Your task to perform on an android device: Add razer thresher to the cart on walmart Image 0: 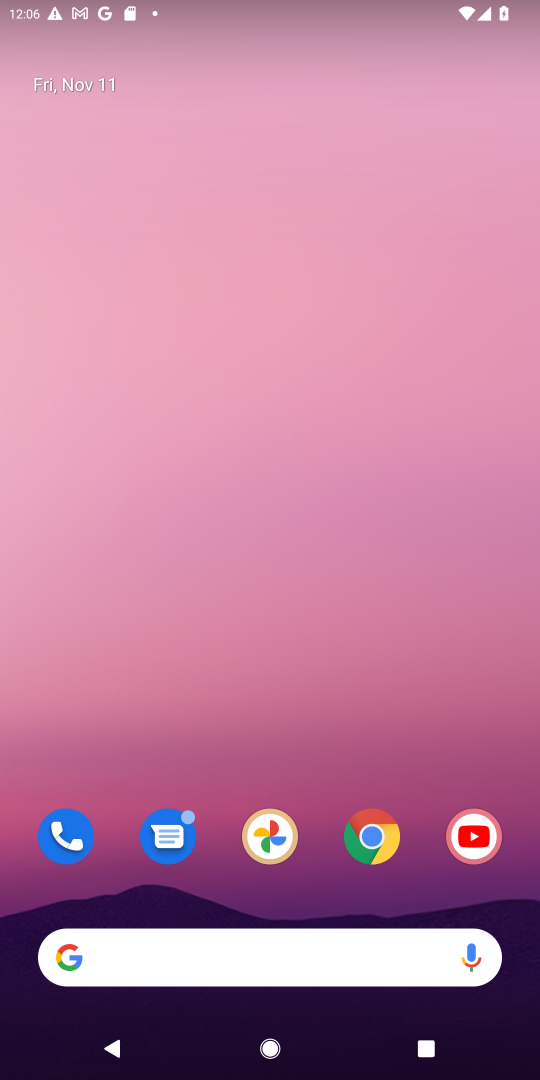
Step 0: click (261, 944)
Your task to perform on an android device: Add razer thresher to the cart on walmart Image 1: 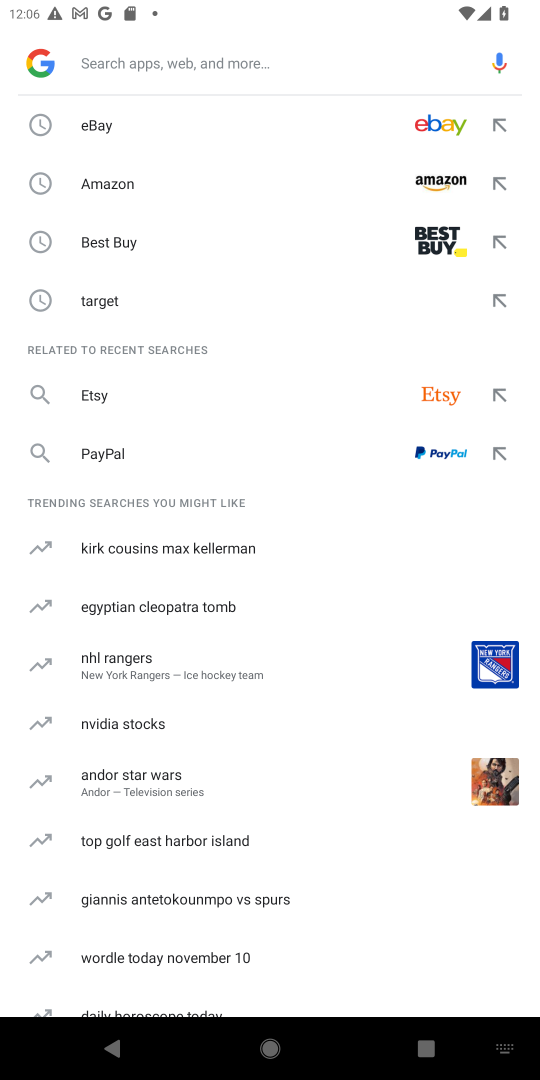
Step 1: type "walmart"
Your task to perform on an android device: Add razer thresher to the cart on walmart Image 2: 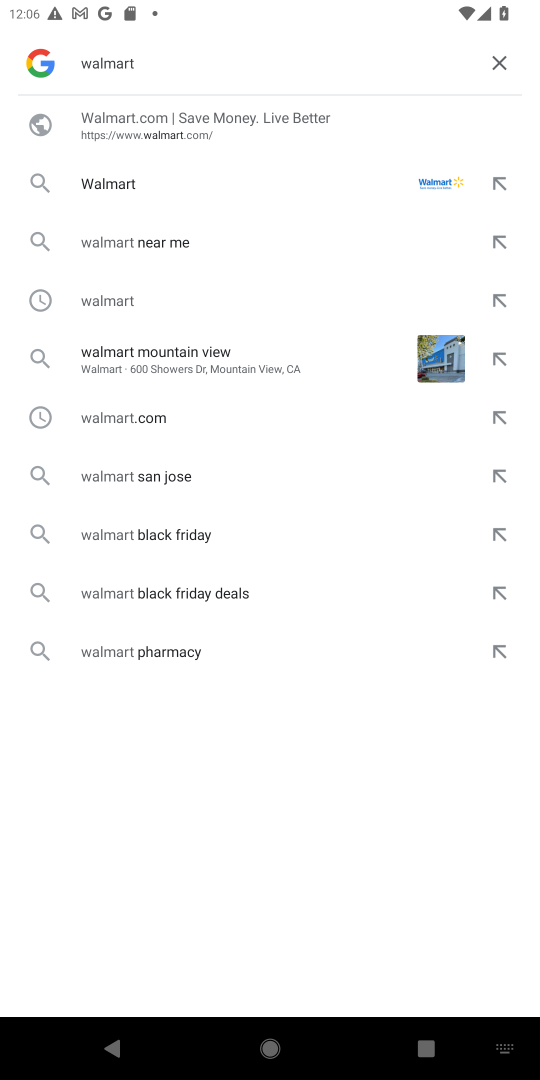
Step 2: click (268, 193)
Your task to perform on an android device: Add razer thresher to the cart on walmart Image 3: 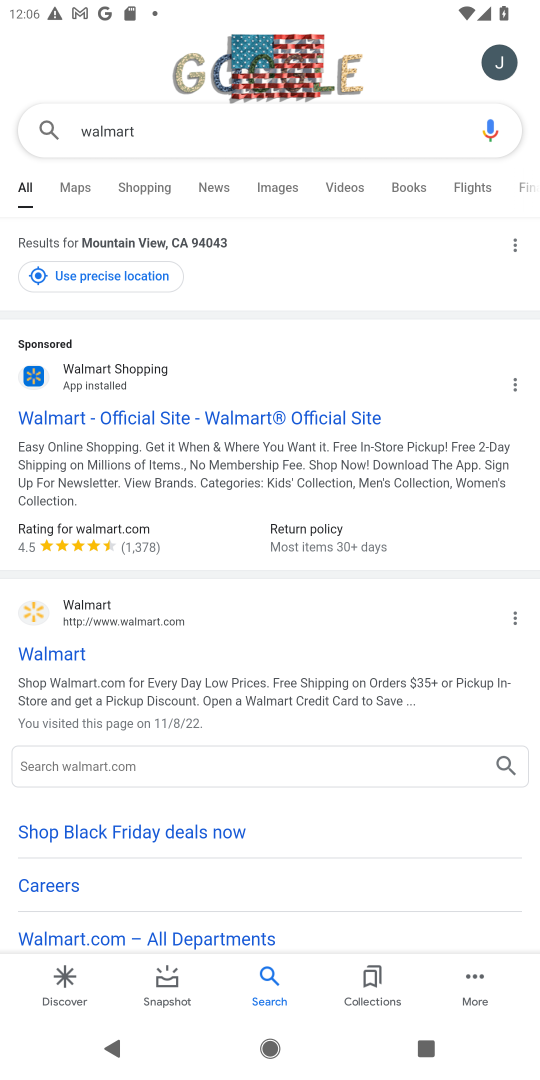
Step 3: click (49, 656)
Your task to perform on an android device: Add razer thresher to the cart on walmart Image 4: 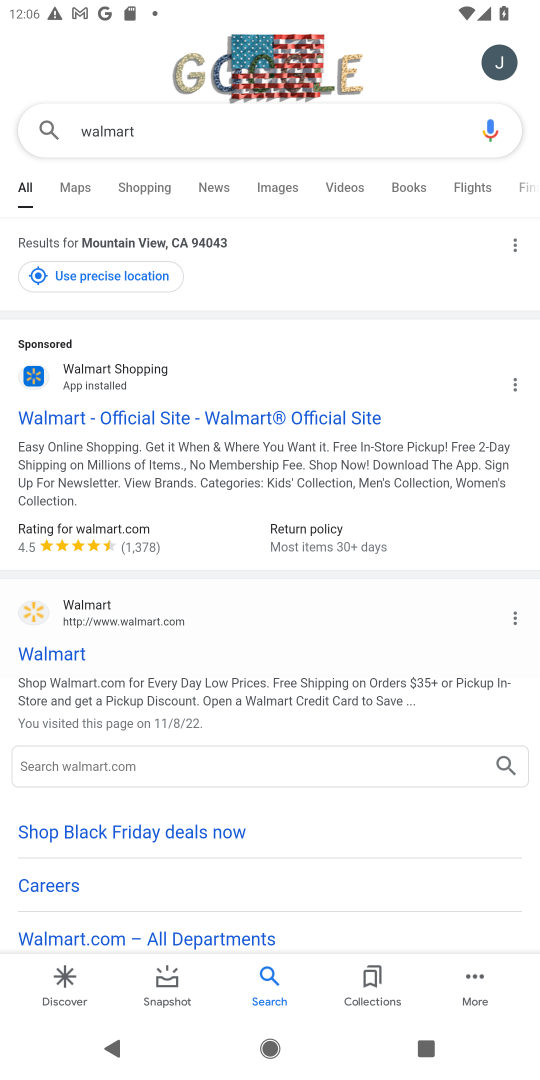
Step 4: click (88, 610)
Your task to perform on an android device: Add razer thresher to the cart on walmart Image 5: 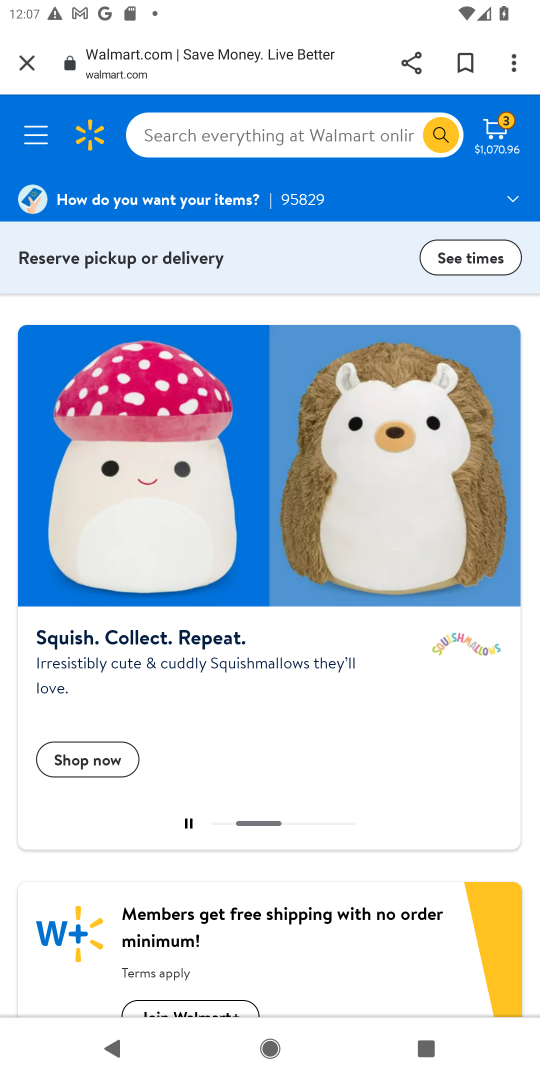
Step 5: click (284, 134)
Your task to perform on an android device: Add razer thresher to the cart on walmart Image 6: 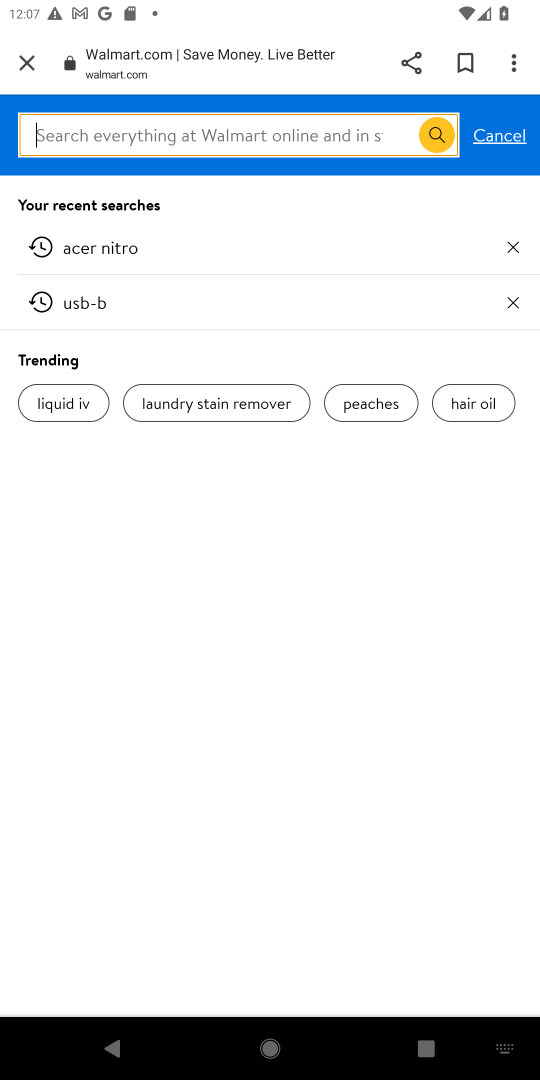
Step 6: type "razer thresher "
Your task to perform on an android device: Add razer thresher to the cart on walmart Image 7: 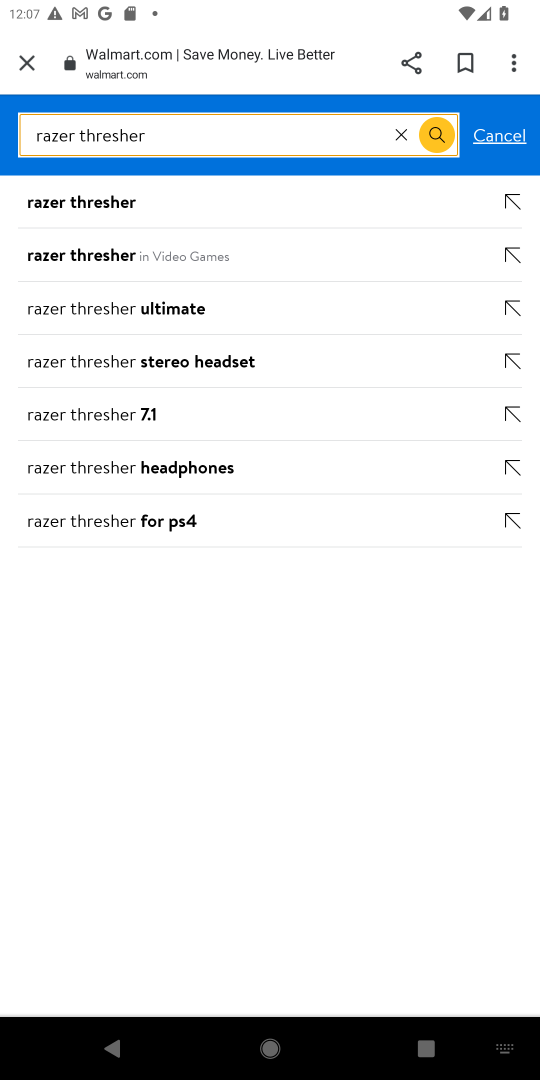
Step 7: click (87, 200)
Your task to perform on an android device: Add razer thresher to the cart on walmart Image 8: 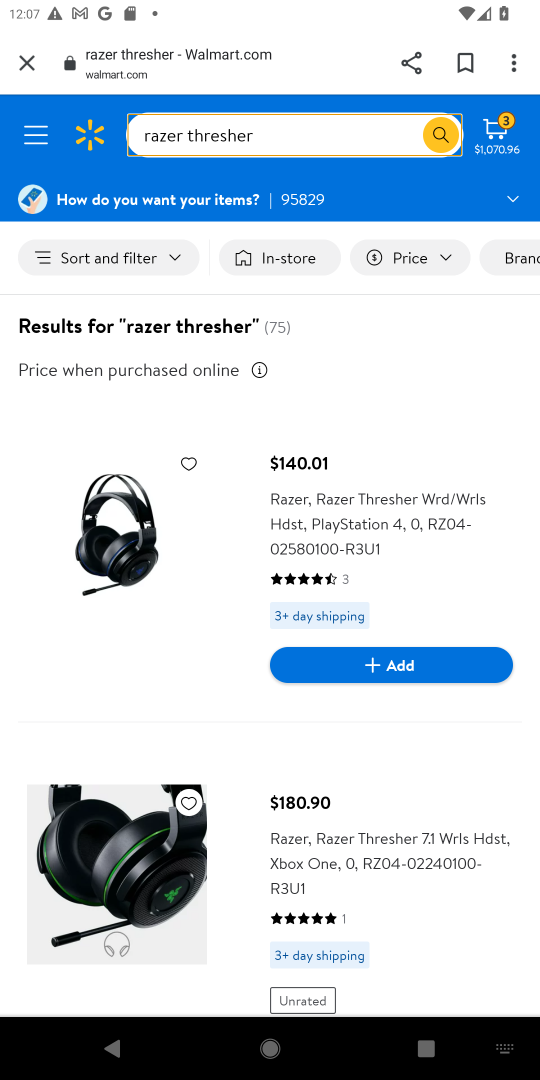
Step 8: click (447, 137)
Your task to perform on an android device: Add razer thresher to the cart on walmart Image 9: 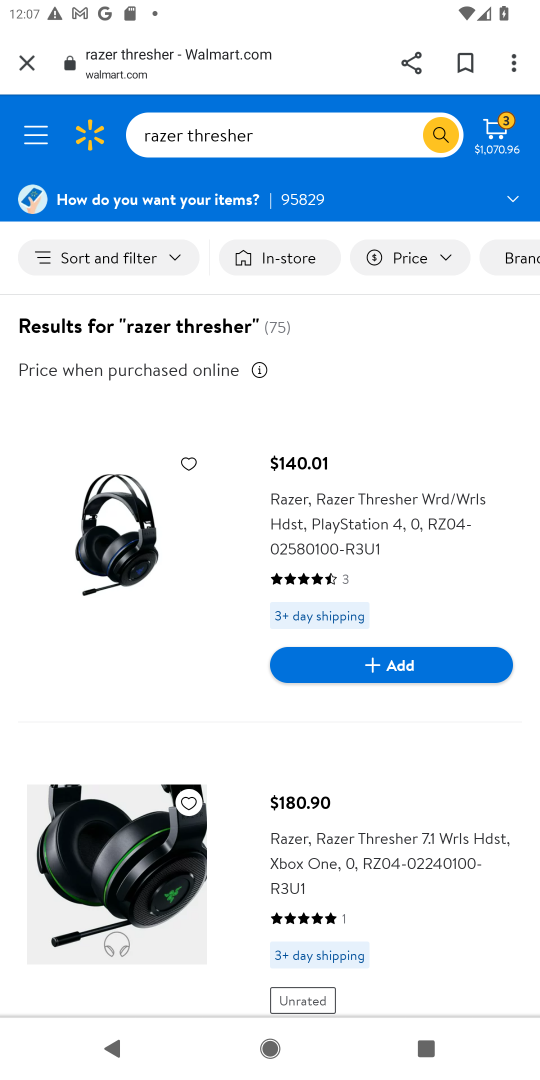
Step 9: click (385, 662)
Your task to perform on an android device: Add razer thresher to the cart on walmart Image 10: 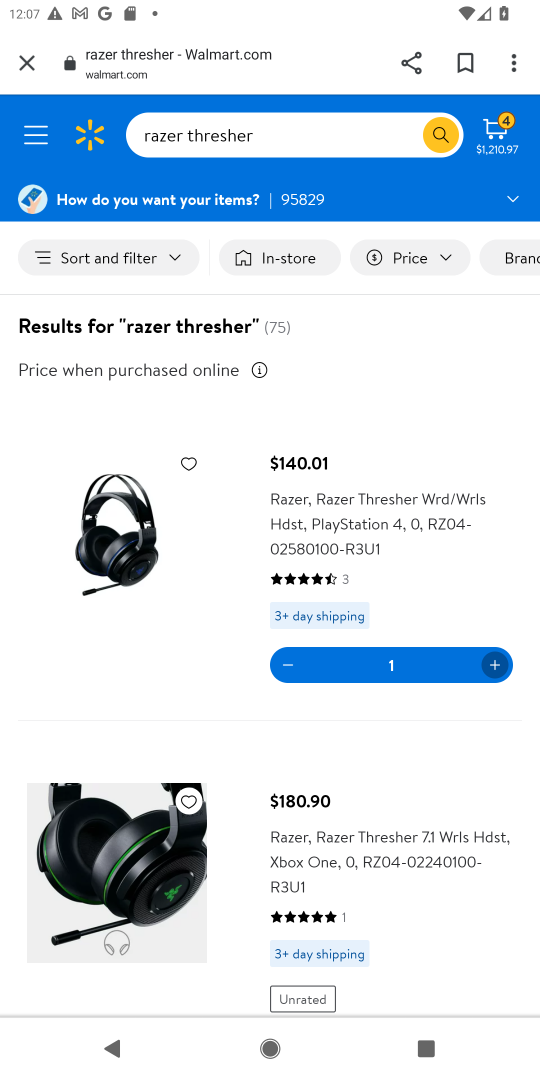
Step 10: task complete